Your task to perform on an android device: Search for vegetarian restaurants on Maps Image 0: 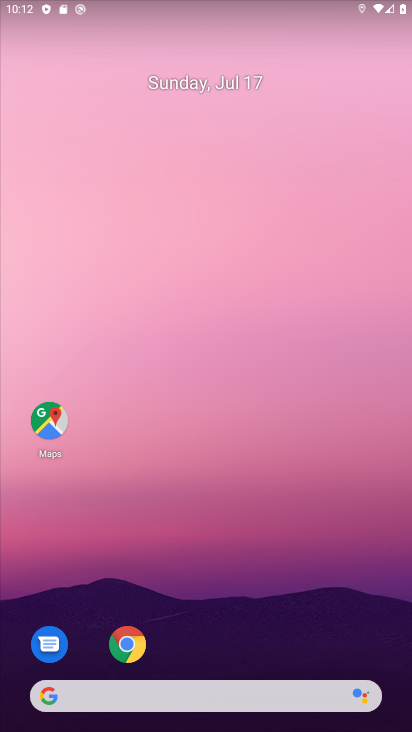
Step 0: press home button
Your task to perform on an android device: Search for vegetarian restaurants on Maps Image 1: 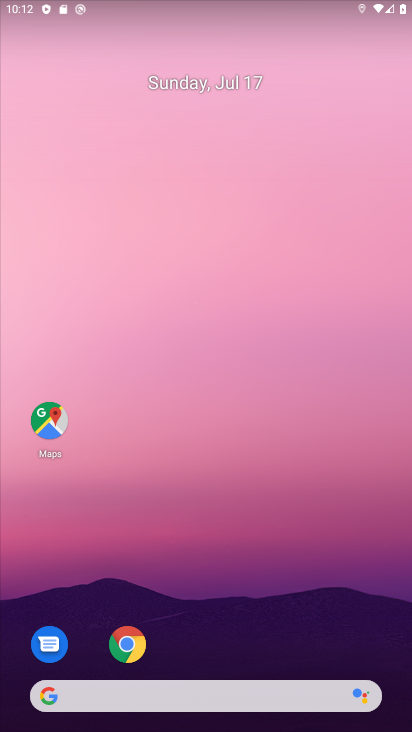
Step 1: click (52, 415)
Your task to perform on an android device: Search for vegetarian restaurants on Maps Image 2: 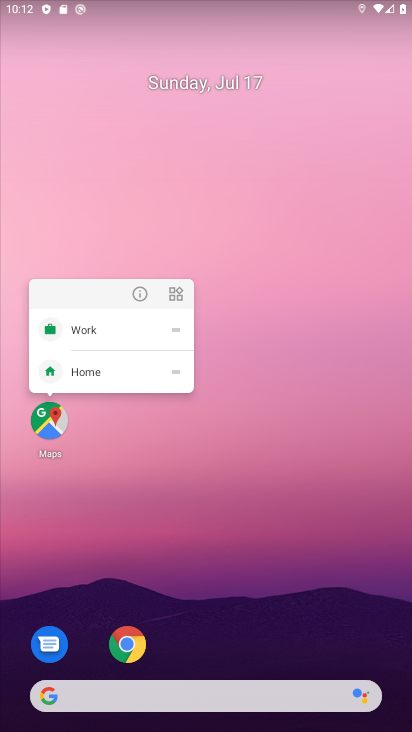
Step 2: click (43, 421)
Your task to perform on an android device: Search for vegetarian restaurants on Maps Image 3: 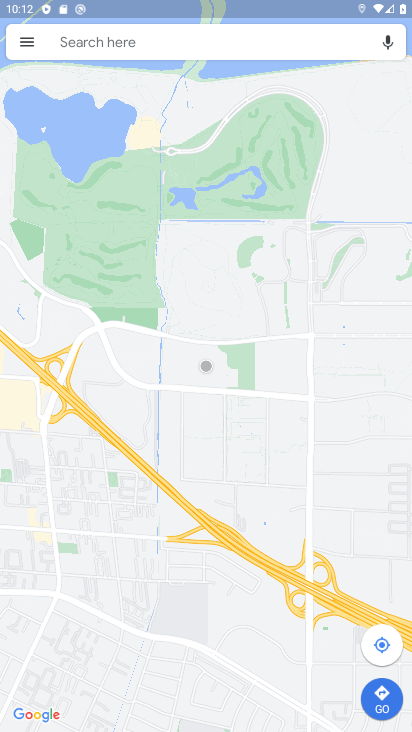
Step 3: click (91, 40)
Your task to perform on an android device: Search for vegetarian restaurants on Maps Image 4: 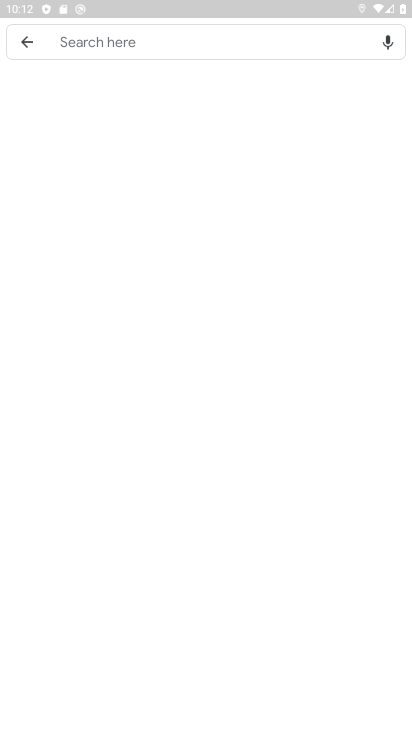
Step 4: type "vegetarian restaurants"
Your task to perform on an android device: Search for vegetarian restaurants on Maps Image 5: 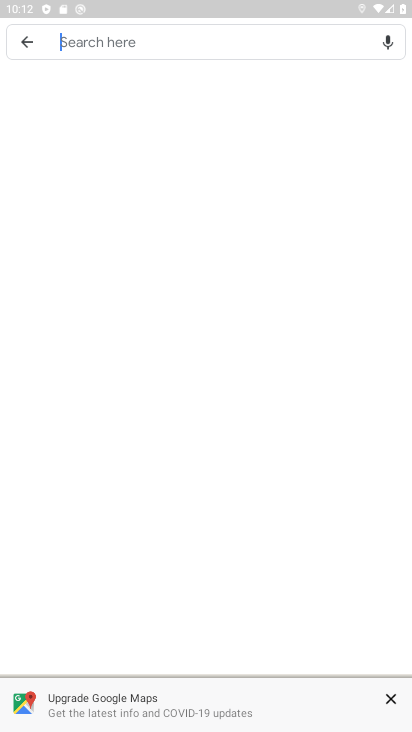
Step 5: click (146, 32)
Your task to perform on an android device: Search for vegetarian restaurants on Maps Image 6: 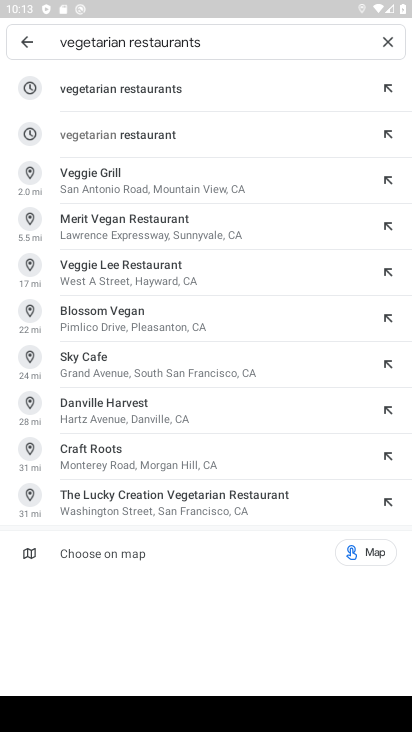
Step 6: press enter
Your task to perform on an android device: Search for vegetarian restaurants on Maps Image 7: 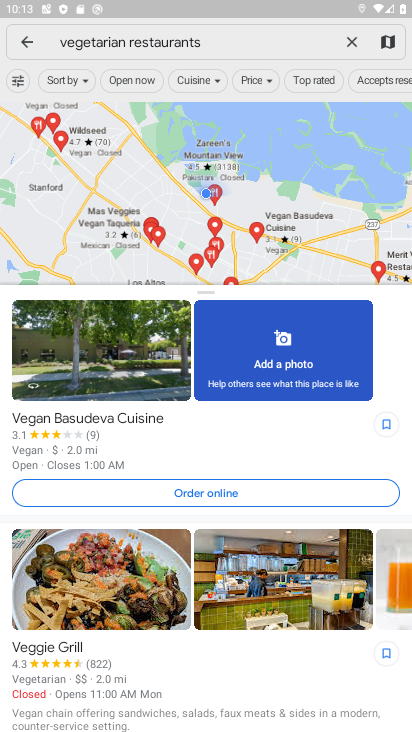
Step 7: task complete